Your task to perform on an android device: Go to privacy settings Image 0: 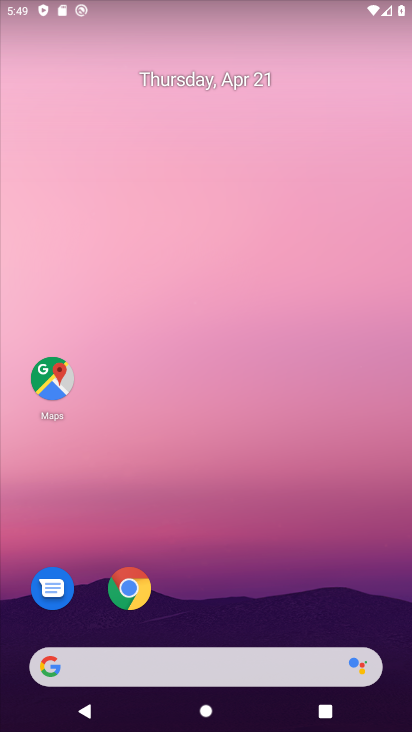
Step 0: click (143, 574)
Your task to perform on an android device: Go to privacy settings Image 1: 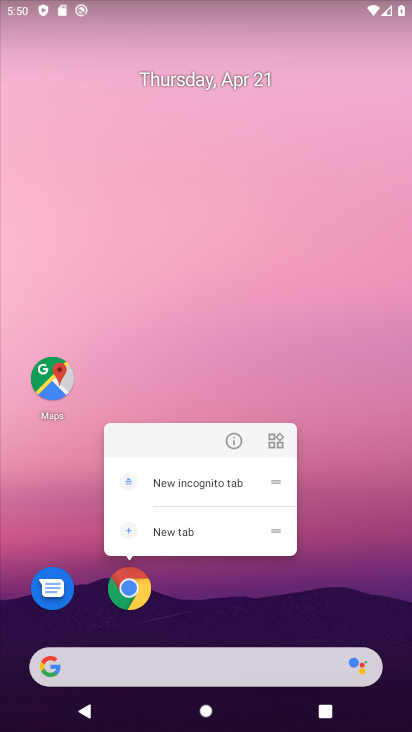
Step 1: click (139, 574)
Your task to perform on an android device: Go to privacy settings Image 2: 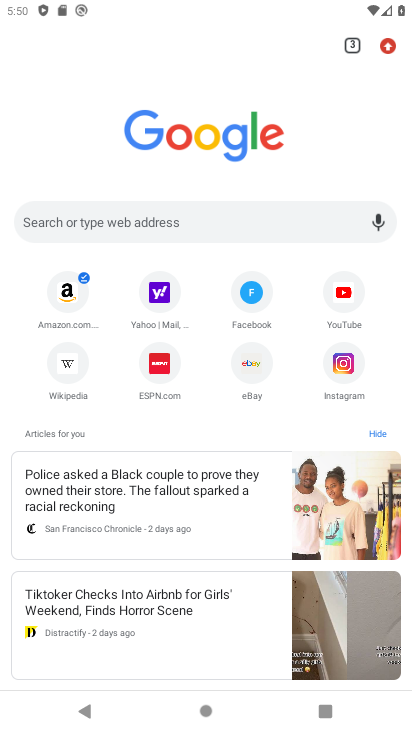
Step 2: press home button
Your task to perform on an android device: Go to privacy settings Image 3: 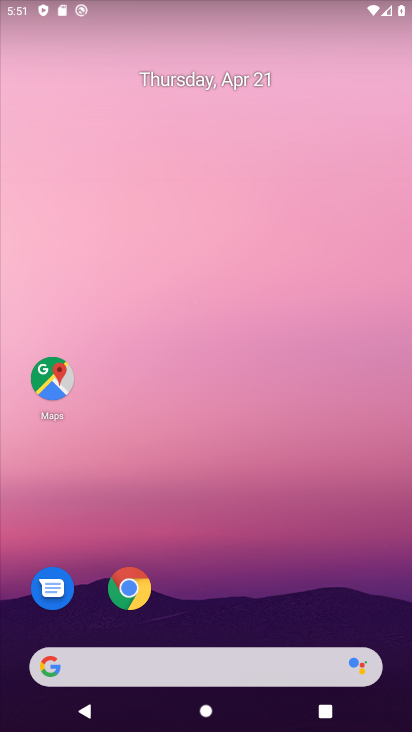
Step 3: drag from (251, 611) to (287, 284)
Your task to perform on an android device: Go to privacy settings Image 4: 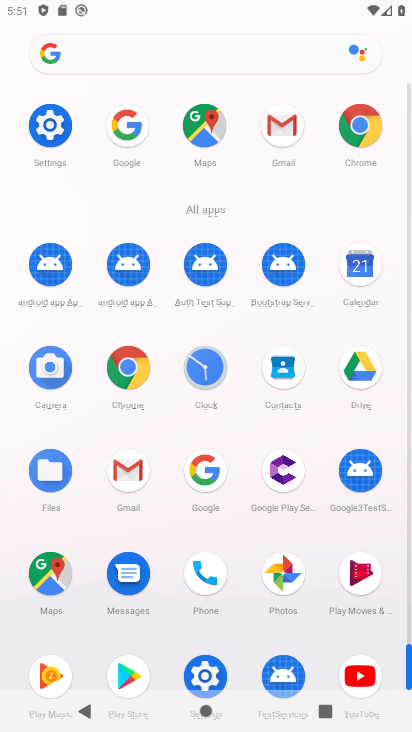
Step 4: click (60, 144)
Your task to perform on an android device: Go to privacy settings Image 5: 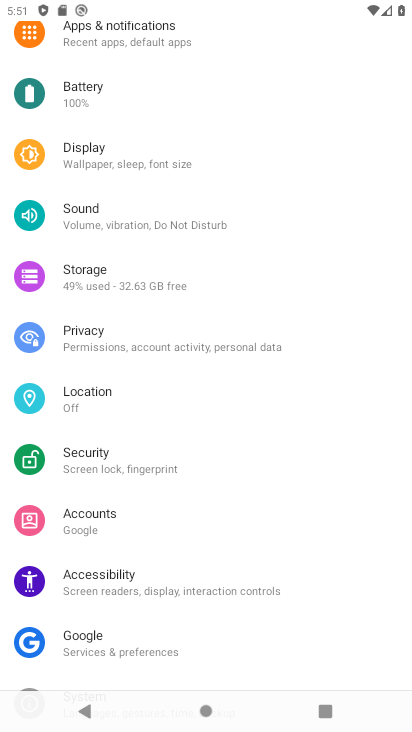
Step 5: click (117, 340)
Your task to perform on an android device: Go to privacy settings Image 6: 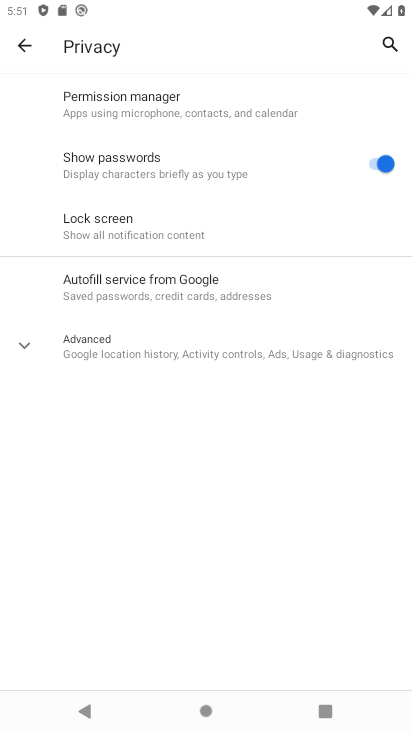
Step 6: task complete